Your task to perform on an android device: Open privacy settings Image 0: 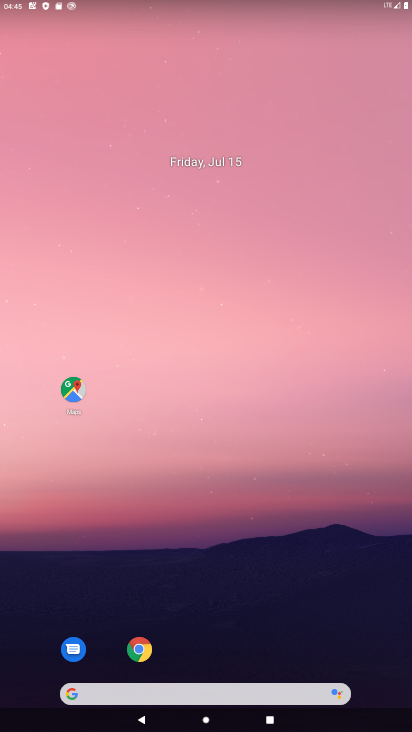
Step 0: click (294, 51)
Your task to perform on an android device: Open privacy settings Image 1: 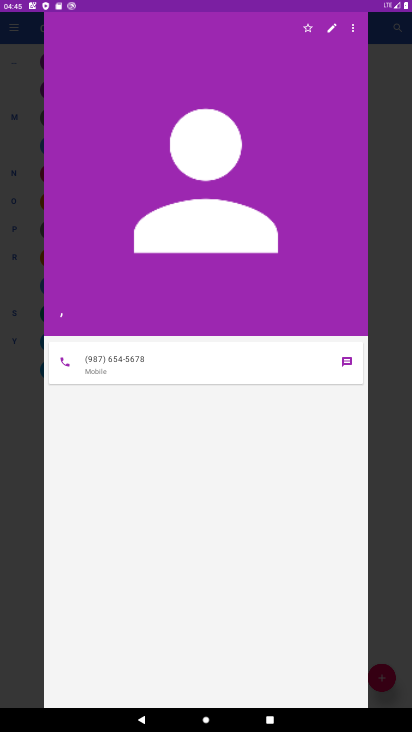
Step 1: press home button
Your task to perform on an android device: Open privacy settings Image 2: 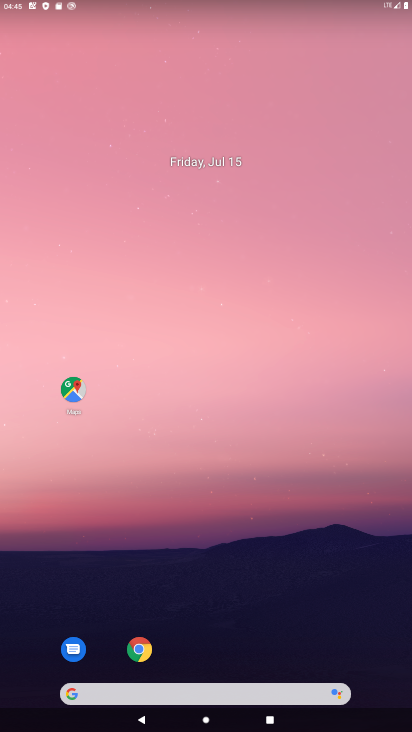
Step 2: drag from (309, 596) to (221, 25)
Your task to perform on an android device: Open privacy settings Image 3: 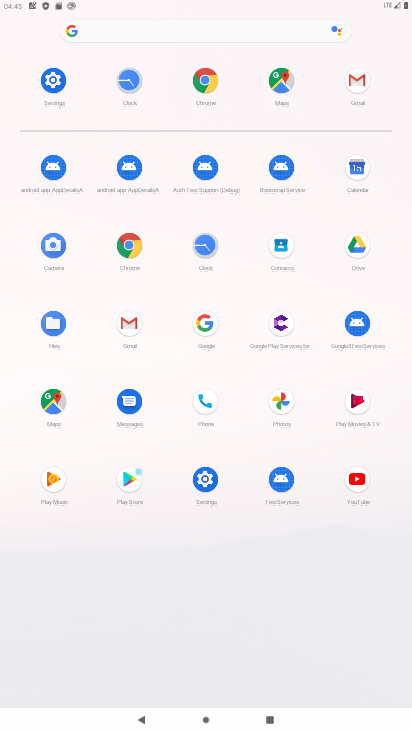
Step 3: click (52, 75)
Your task to perform on an android device: Open privacy settings Image 4: 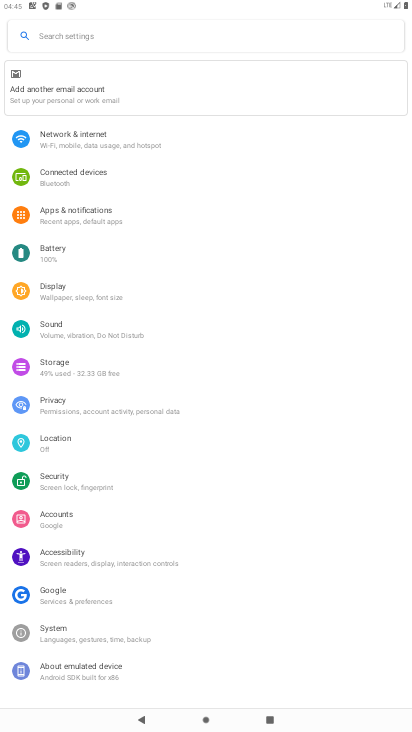
Step 4: click (104, 409)
Your task to perform on an android device: Open privacy settings Image 5: 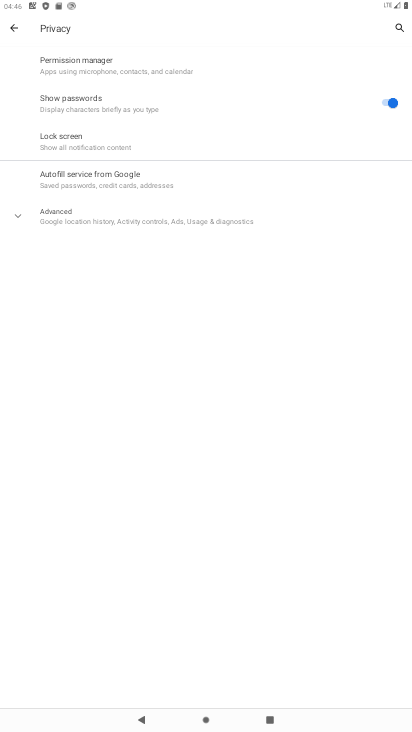
Step 5: task complete